Your task to perform on an android device: open app "YouTube Kids" (install if not already installed) Image 0: 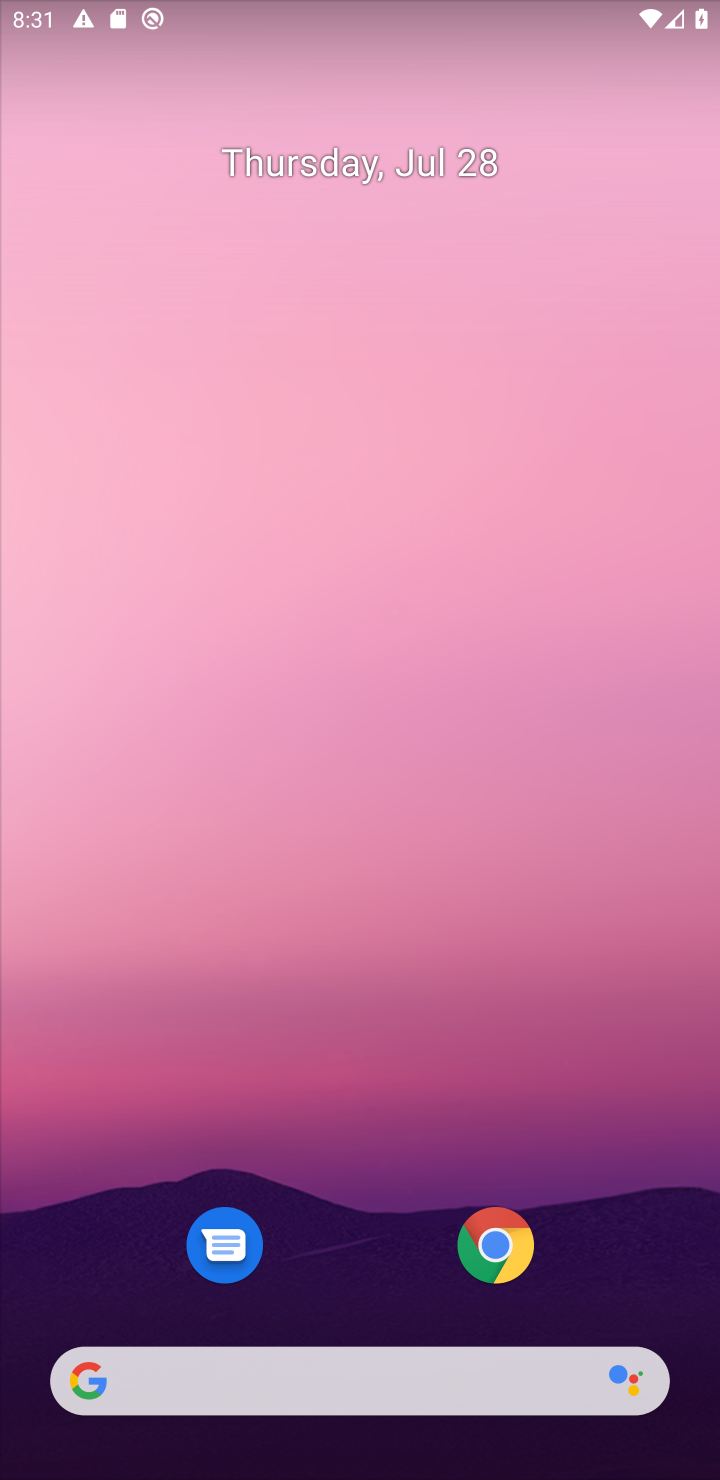
Step 0: drag from (308, 1100) to (308, 223)
Your task to perform on an android device: open app "YouTube Kids" (install if not already installed) Image 1: 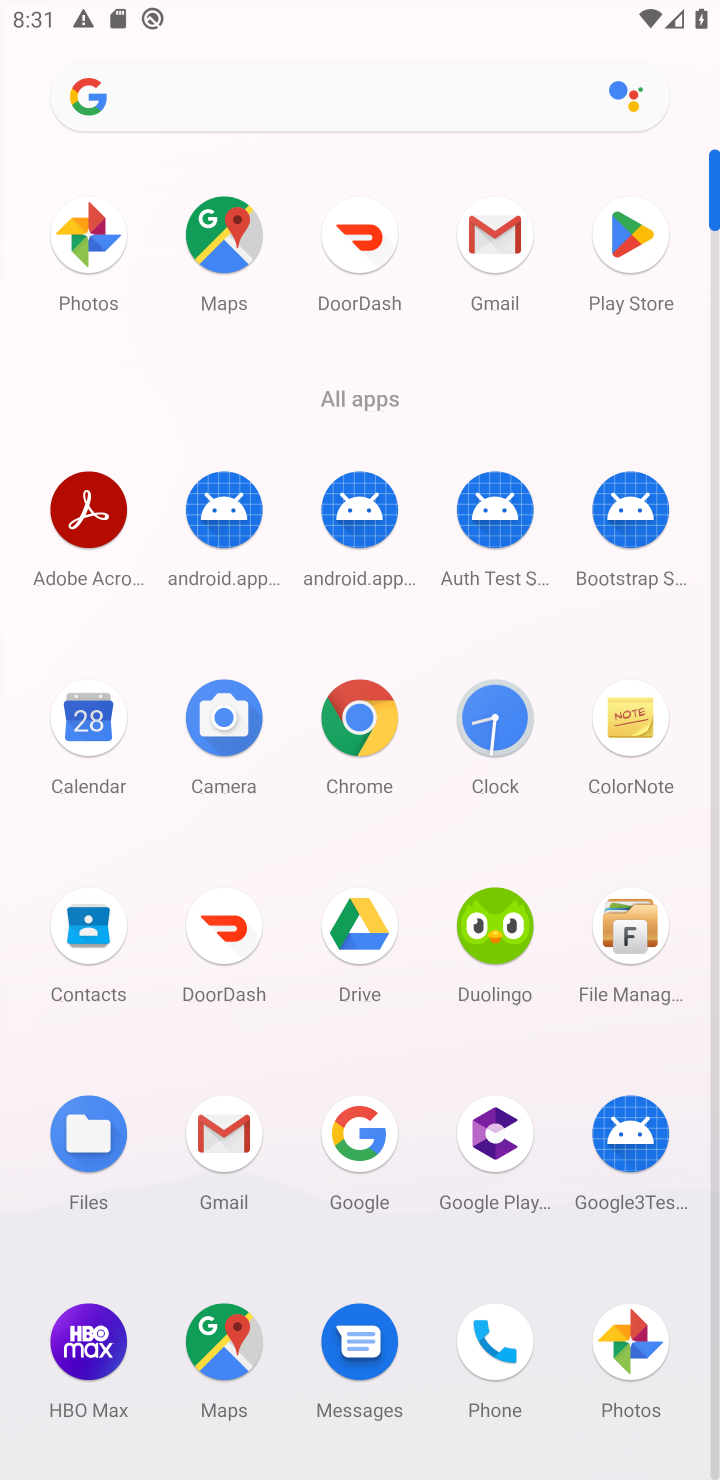
Step 1: click (617, 257)
Your task to perform on an android device: open app "YouTube Kids" (install if not already installed) Image 2: 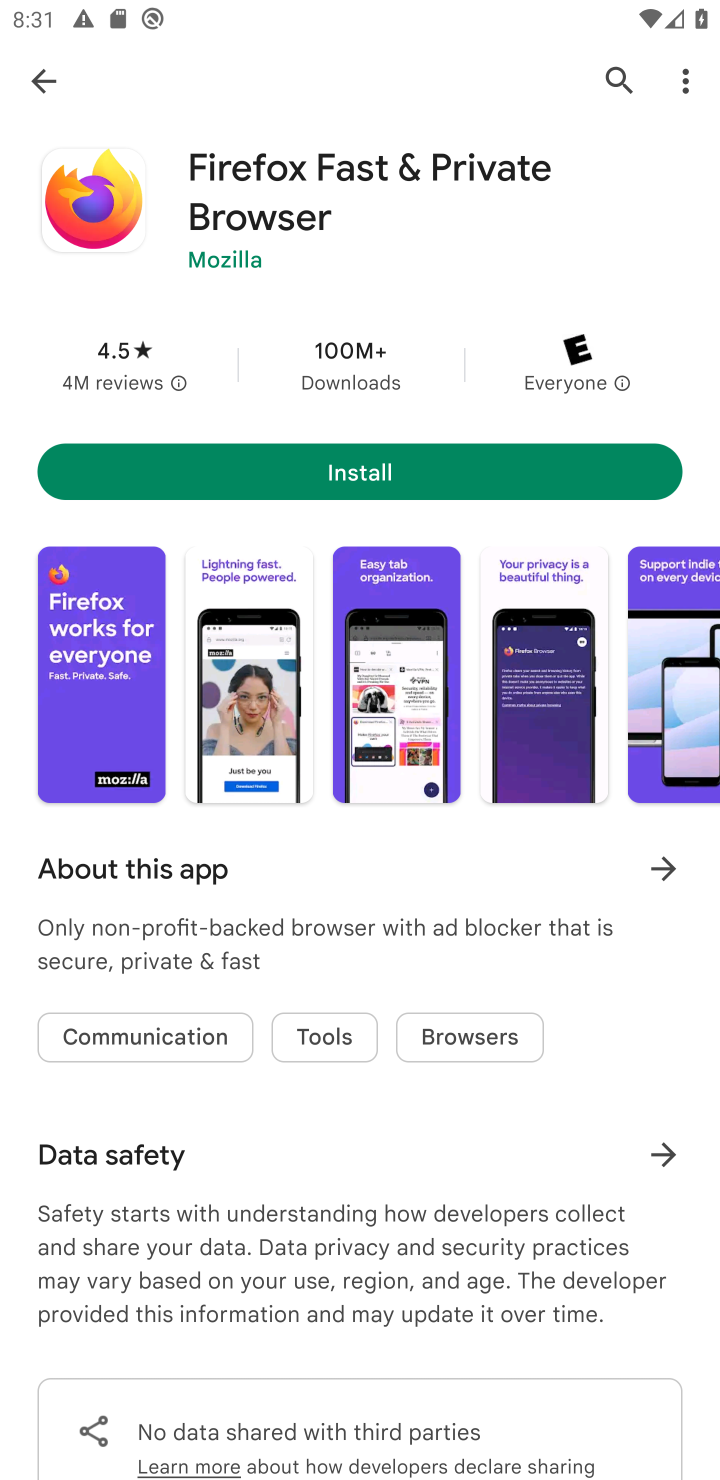
Step 2: click (615, 92)
Your task to perform on an android device: open app "YouTube Kids" (install if not already installed) Image 3: 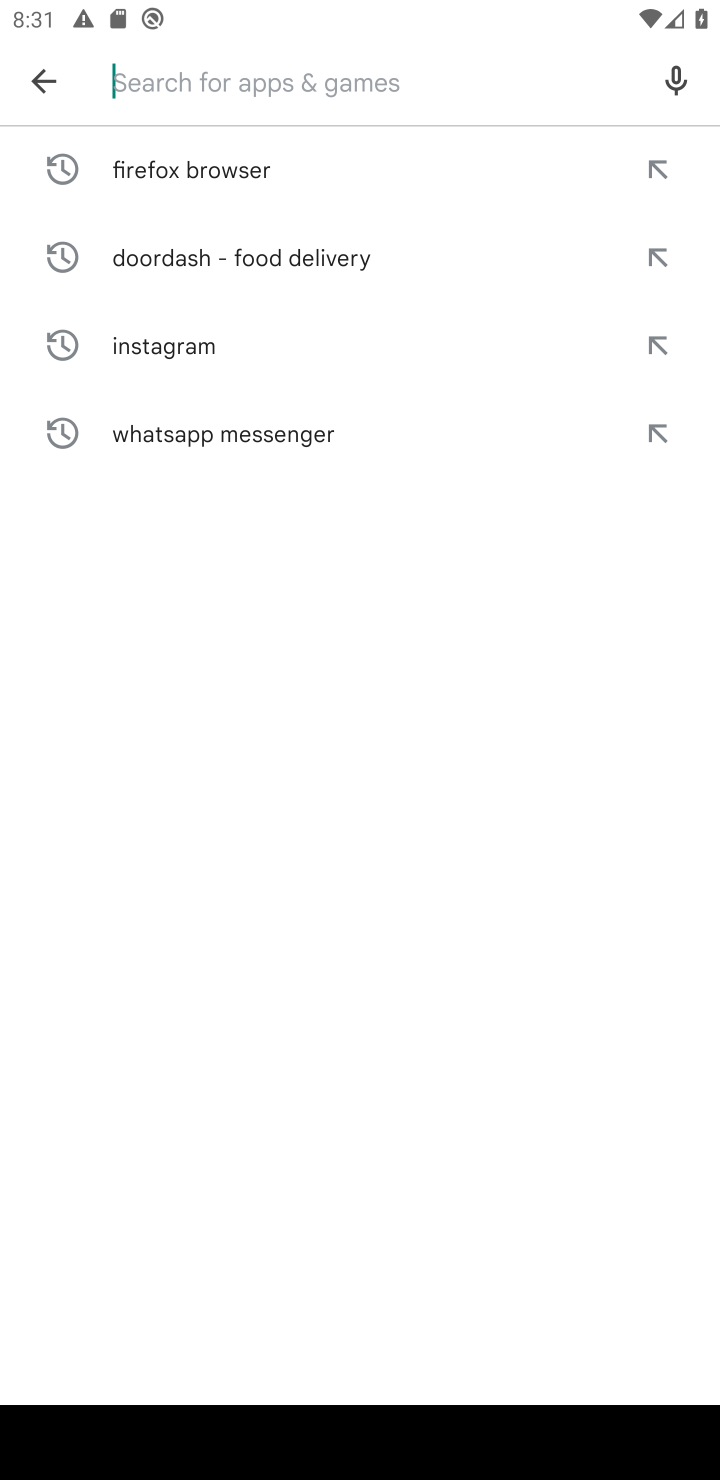
Step 3: type "YouTube Kids"
Your task to perform on an android device: open app "YouTube Kids" (install if not already installed) Image 4: 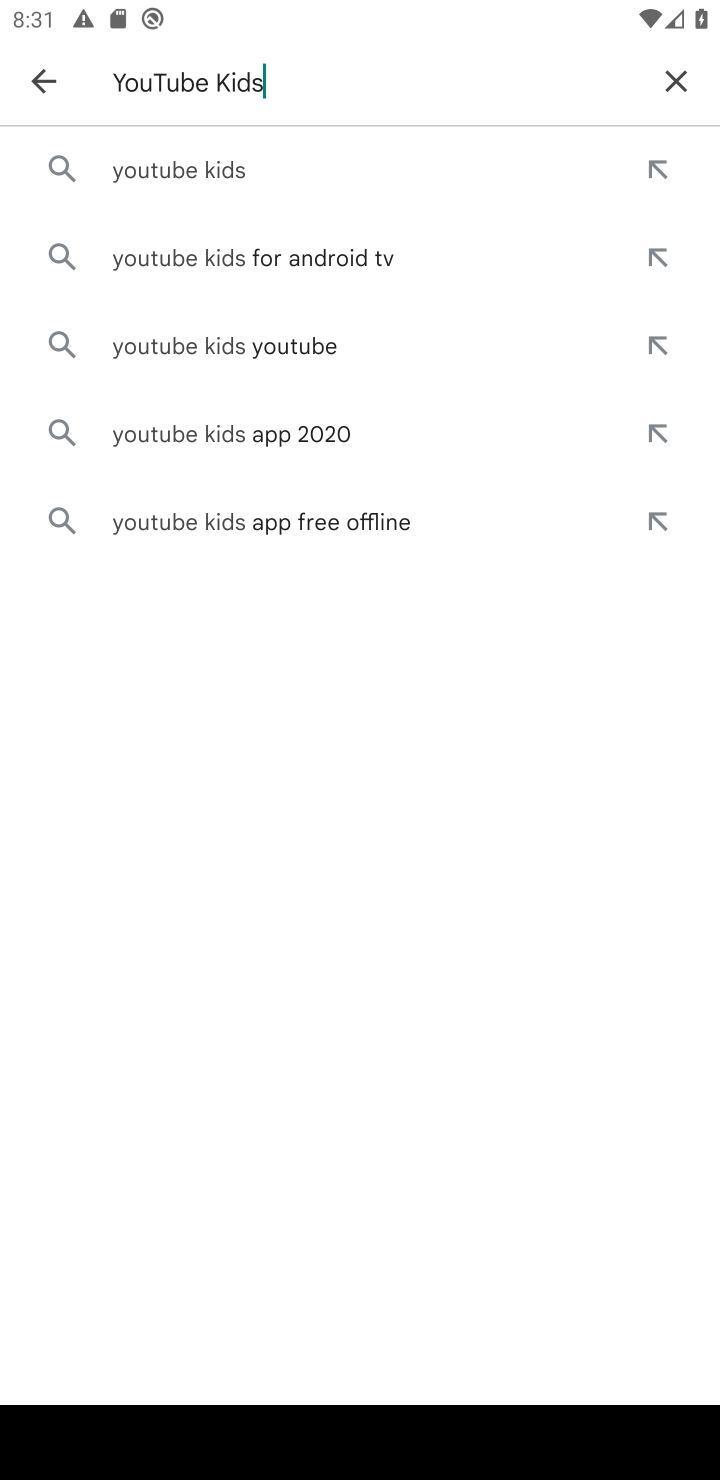
Step 4: click (208, 174)
Your task to perform on an android device: open app "YouTube Kids" (install if not already installed) Image 5: 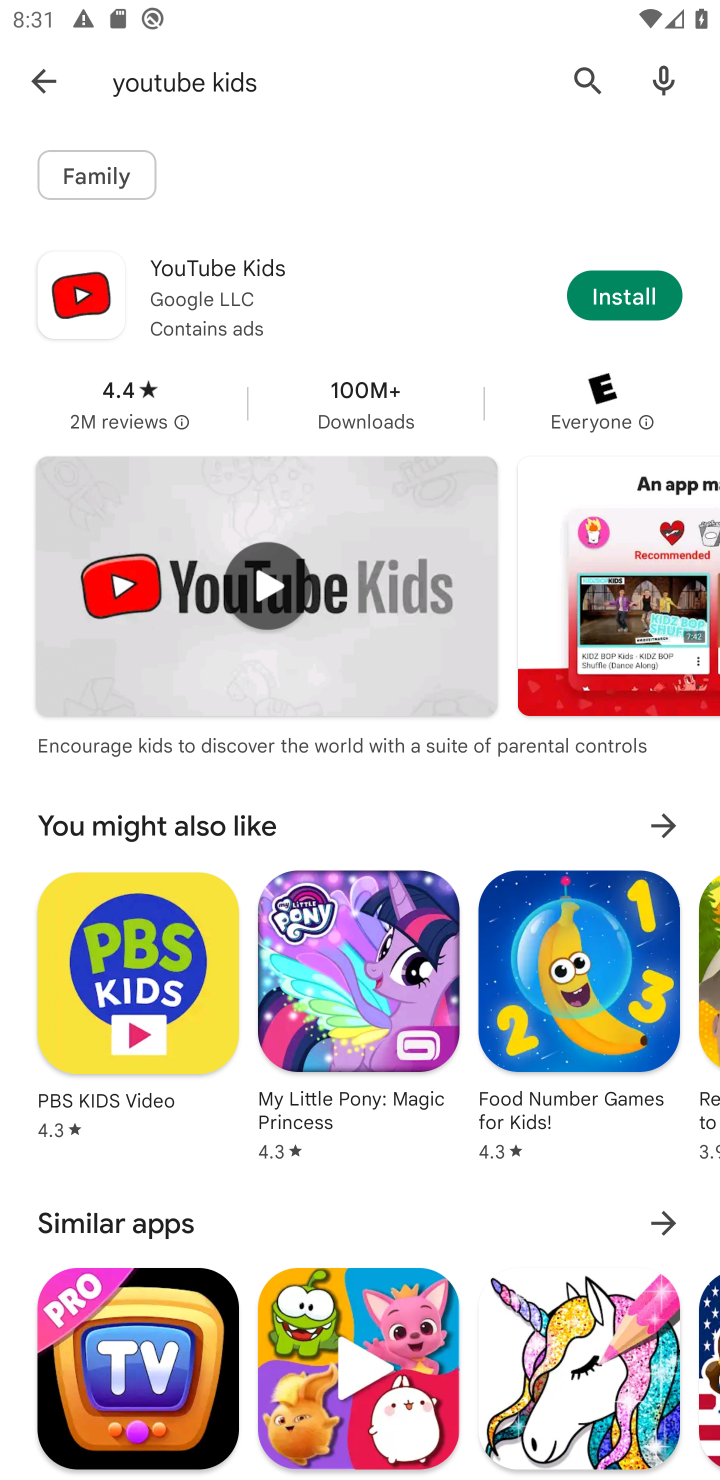
Step 5: click (301, 298)
Your task to perform on an android device: open app "YouTube Kids" (install if not already installed) Image 6: 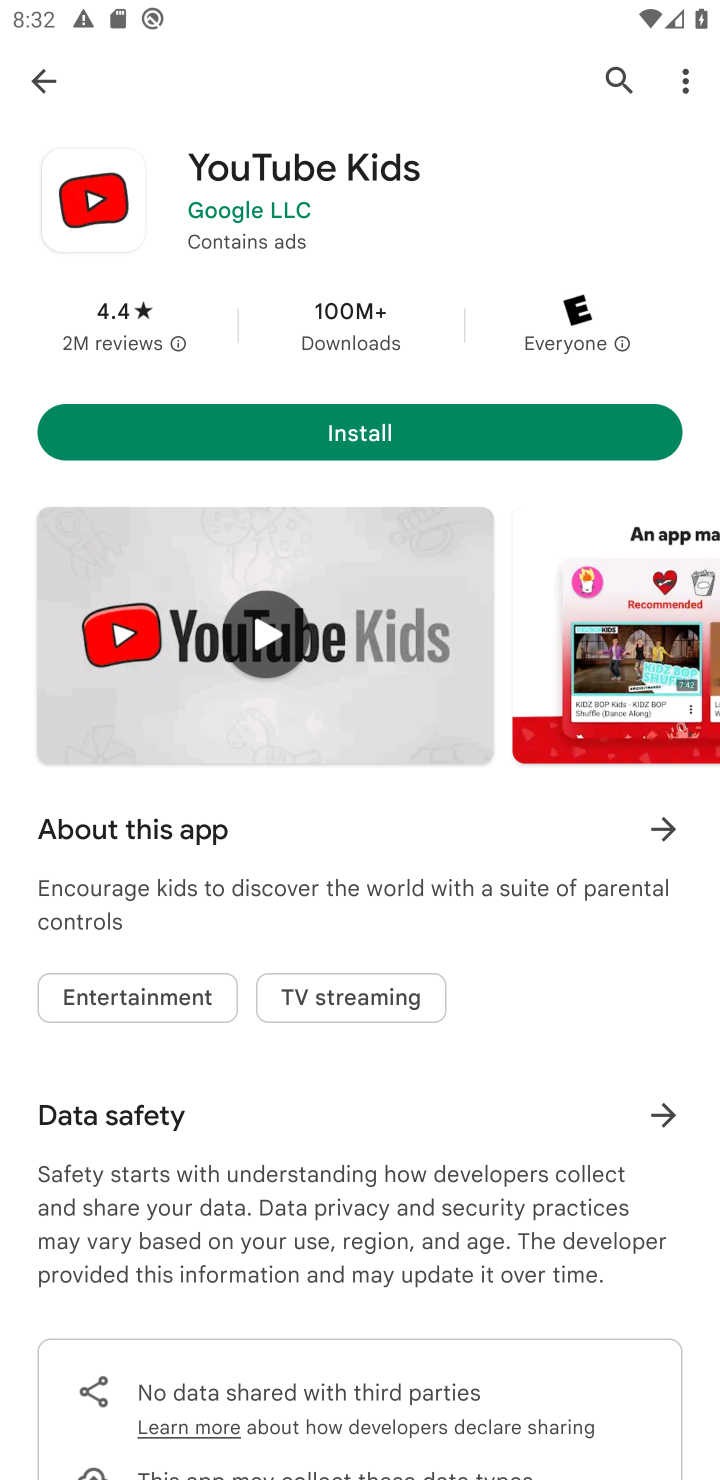
Step 6: click (476, 431)
Your task to perform on an android device: open app "YouTube Kids" (install if not already installed) Image 7: 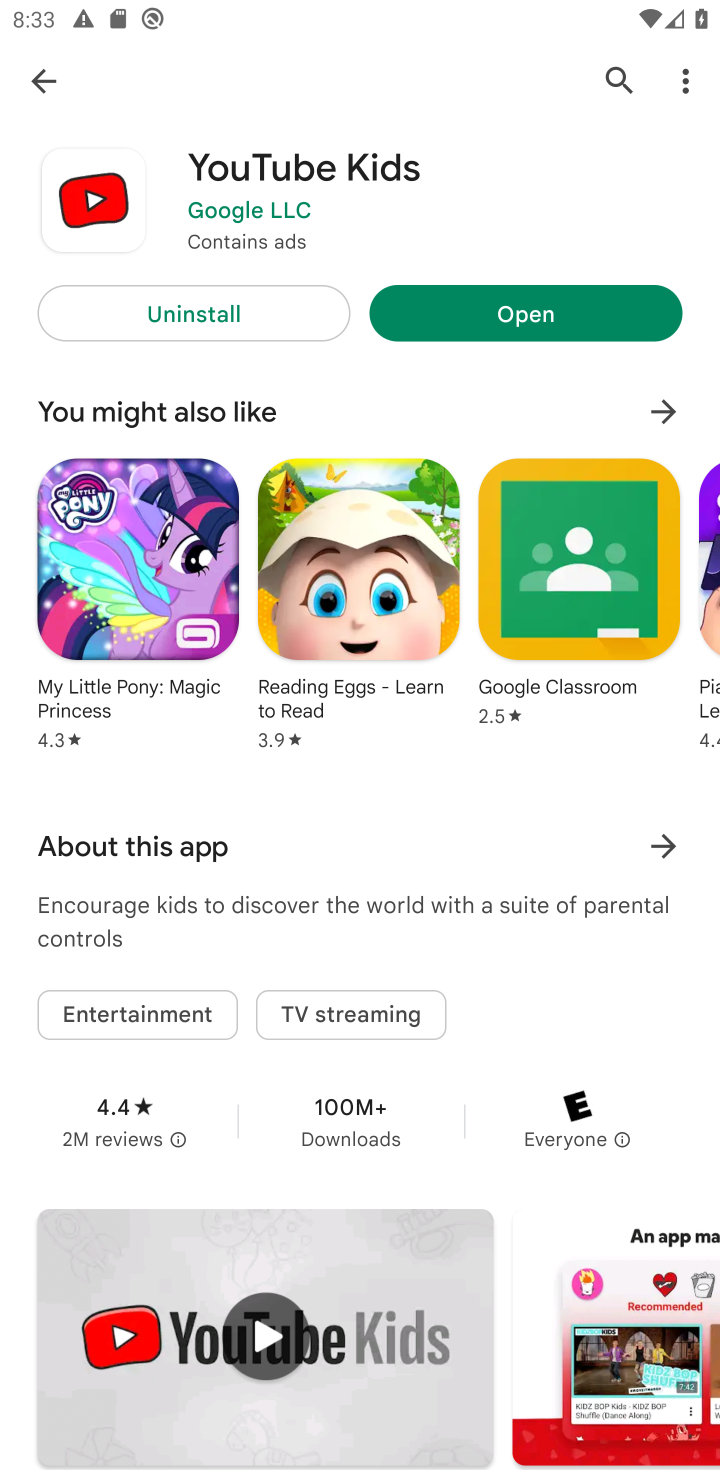
Step 7: click (466, 334)
Your task to perform on an android device: open app "YouTube Kids" (install if not already installed) Image 8: 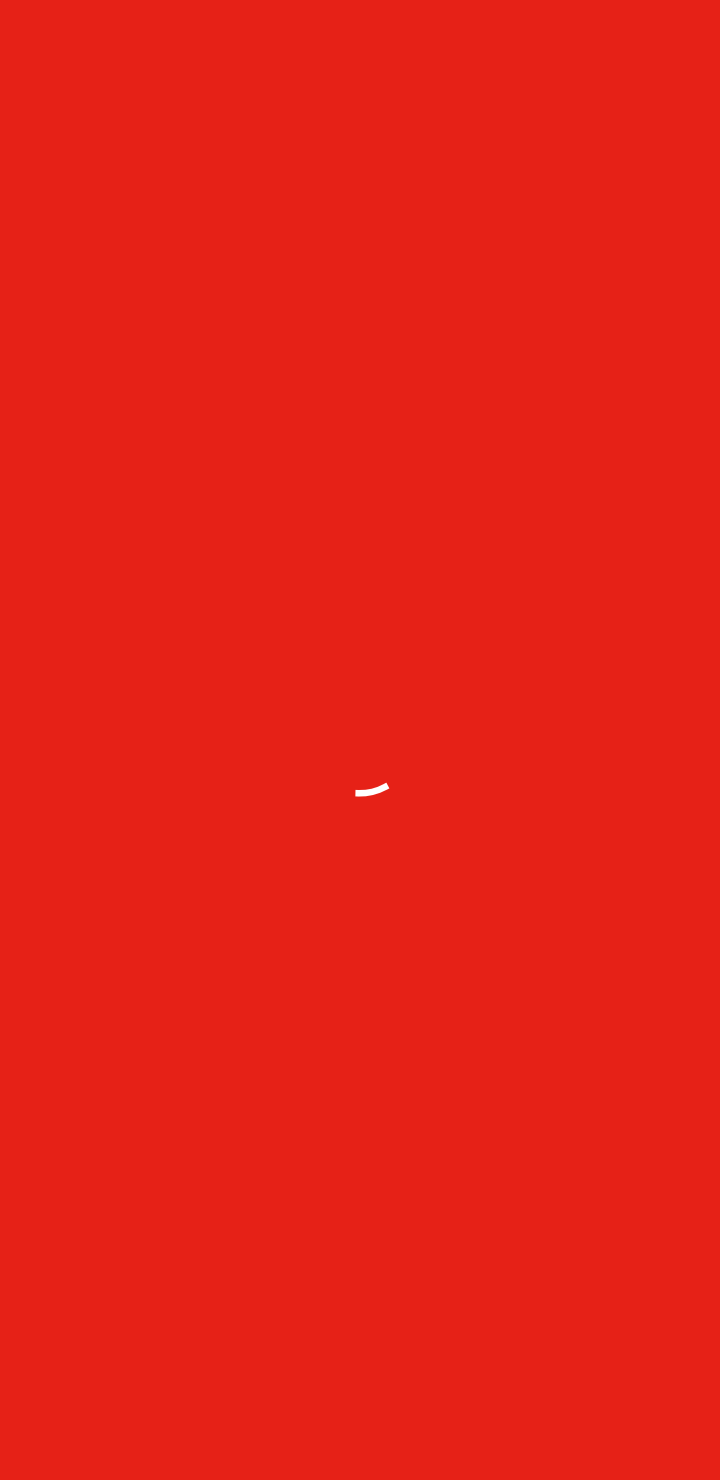
Step 8: task complete